Your task to perform on an android device: Open network settings Image 0: 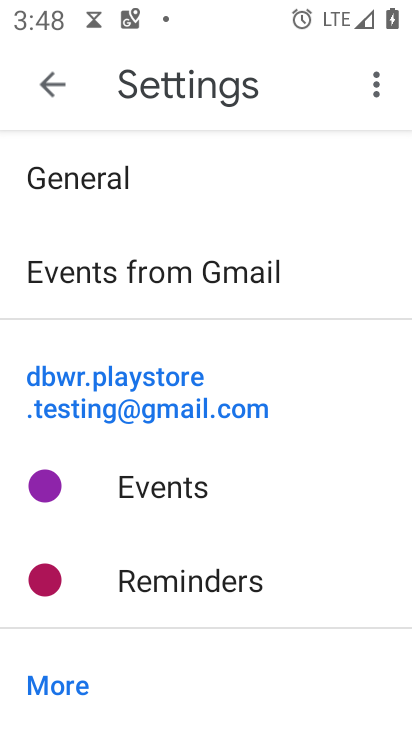
Step 0: press home button
Your task to perform on an android device: Open network settings Image 1: 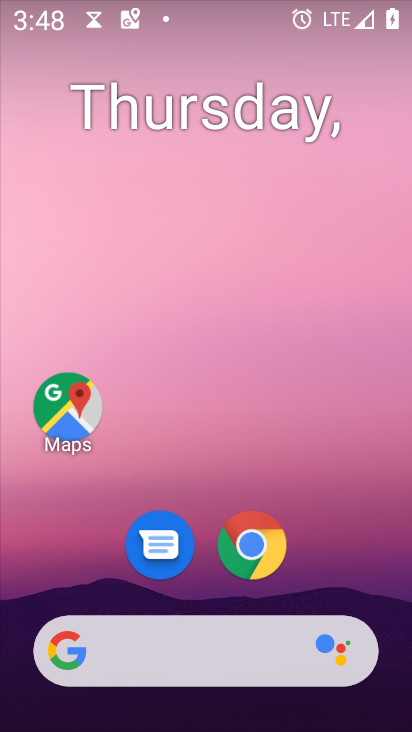
Step 1: drag from (393, 567) to (407, 66)
Your task to perform on an android device: Open network settings Image 2: 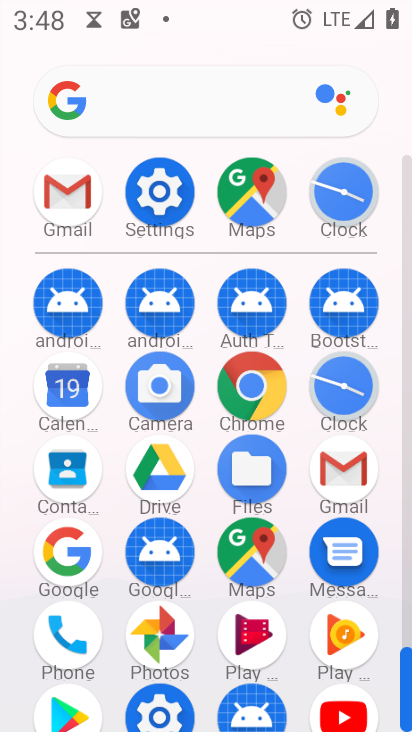
Step 2: click (168, 202)
Your task to perform on an android device: Open network settings Image 3: 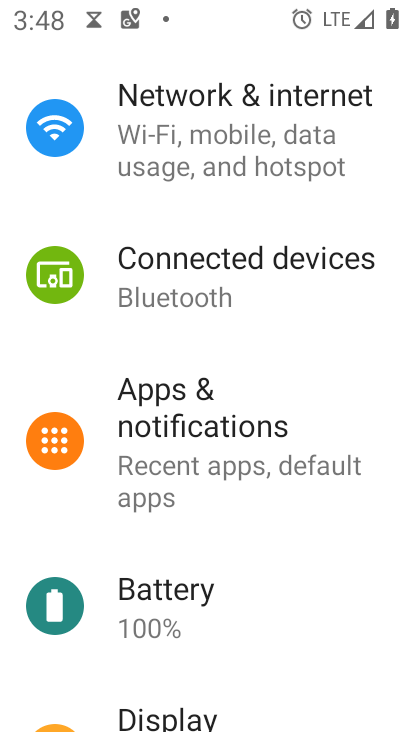
Step 3: drag from (203, 145) to (213, 624)
Your task to perform on an android device: Open network settings Image 4: 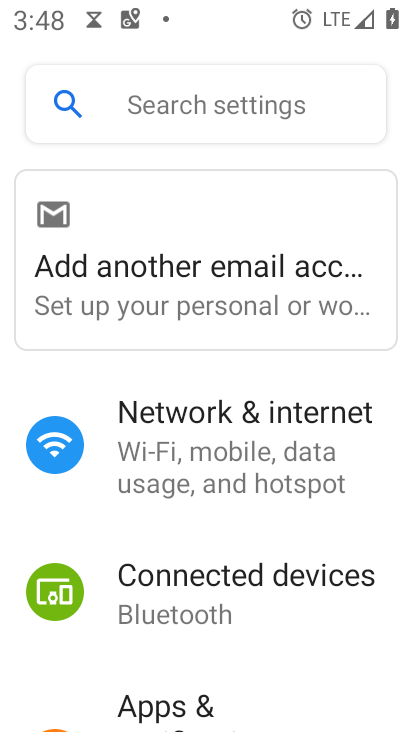
Step 4: click (181, 474)
Your task to perform on an android device: Open network settings Image 5: 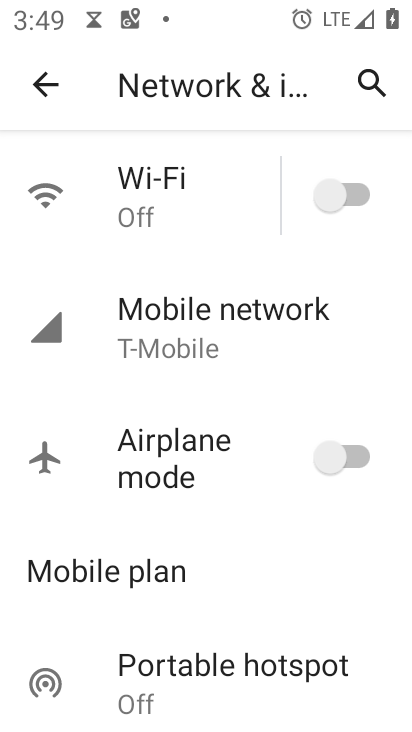
Step 5: task complete